Your task to perform on an android device: Open accessibility settings Image 0: 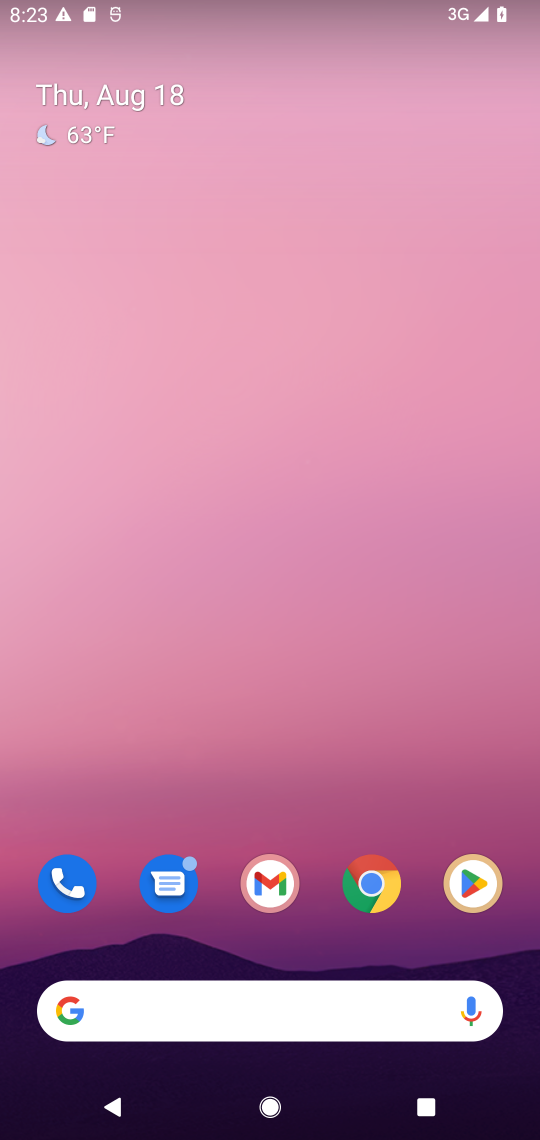
Step 0: drag from (49, 1085) to (449, 254)
Your task to perform on an android device: Open accessibility settings Image 1: 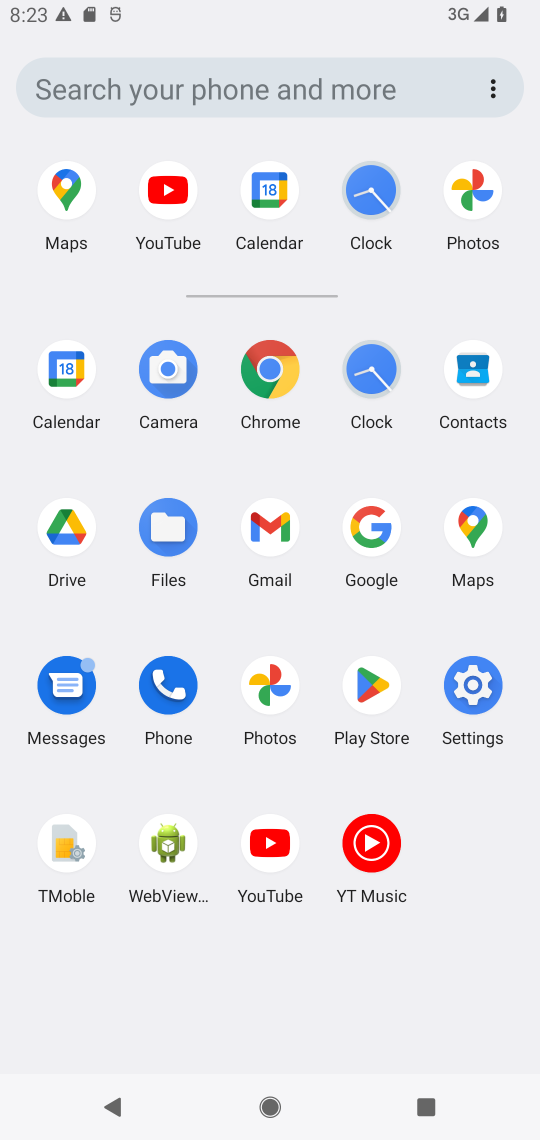
Step 1: click (470, 701)
Your task to perform on an android device: Open accessibility settings Image 2: 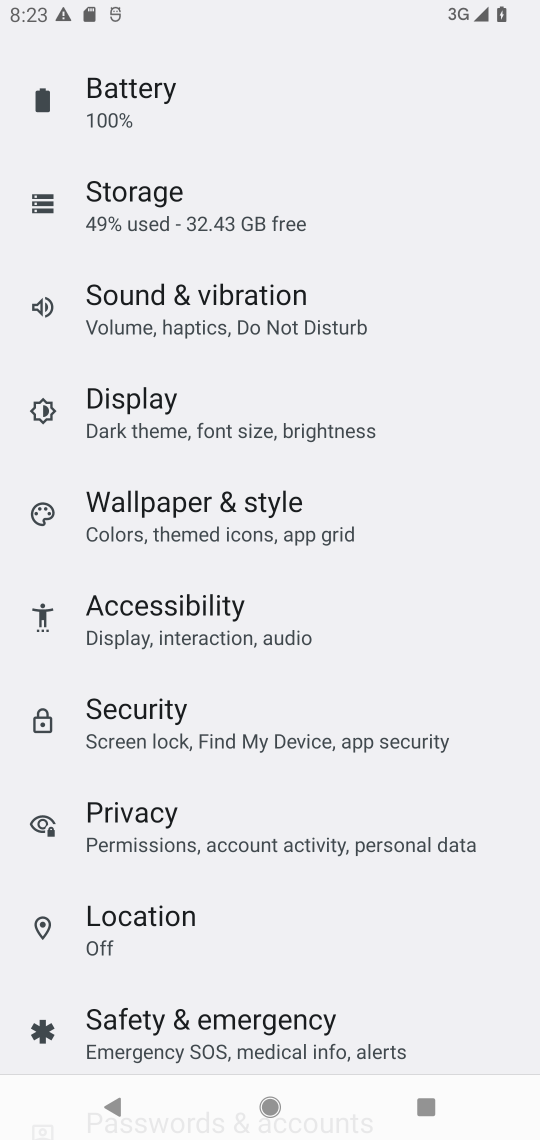
Step 2: drag from (412, 1019) to (380, 357)
Your task to perform on an android device: Open accessibility settings Image 3: 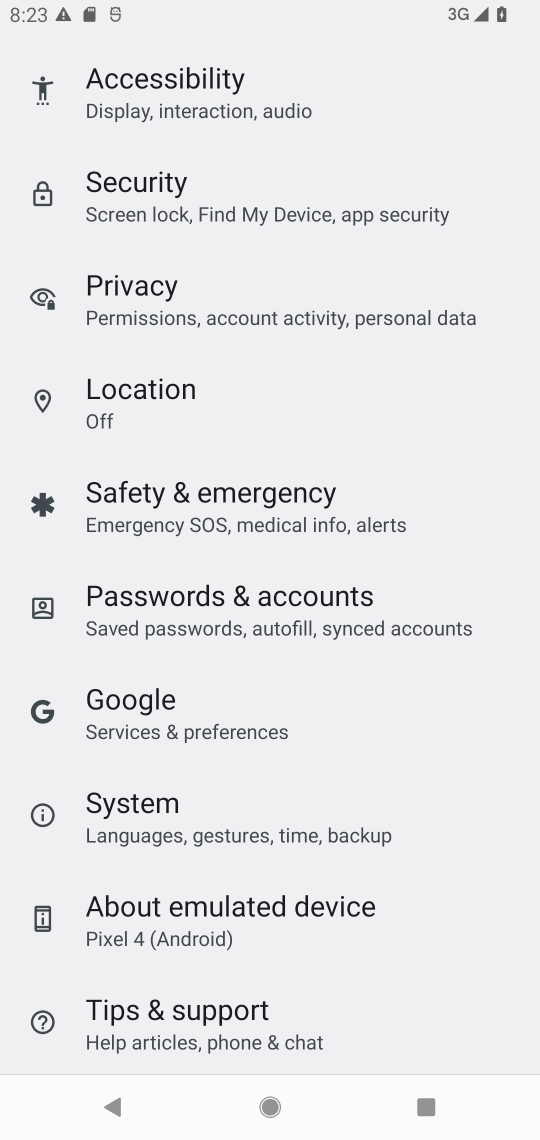
Step 3: click (178, 91)
Your task to perform on an android device: Open accessibility settings Image 4: 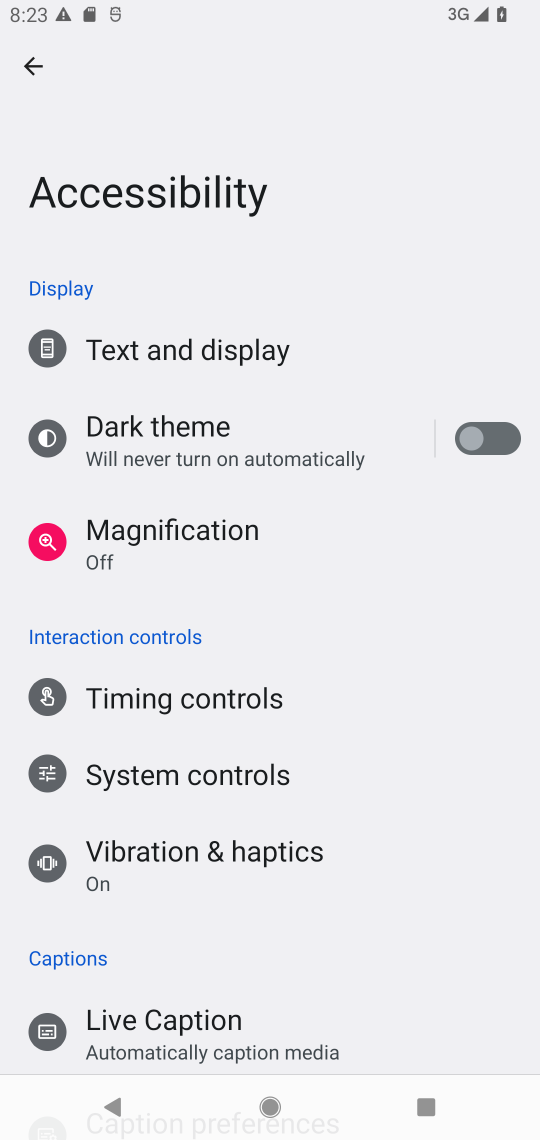
Step 4: task complete